Your task to perform on an android device: turn off location history Image 0: 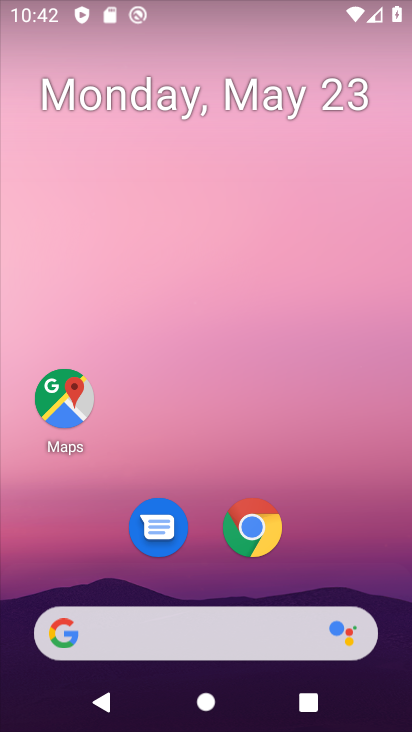
Step 0: drag from (102, 601) to (219, 74)
Your task to perform on an android device: turn off location history Image 1: 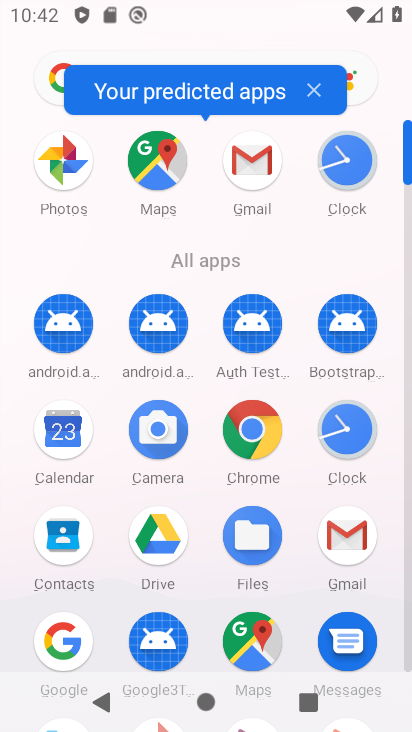
Step 1: drag from (171, 659) to (227, 301)
Your task to perform on an android device: turn off location history Image 2: 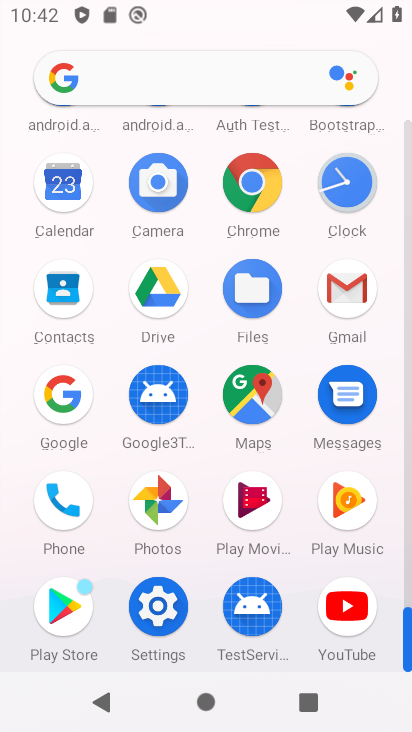
Step 2: click (169, 628)
Your task to perform on an android device: turn off location history Image 3: 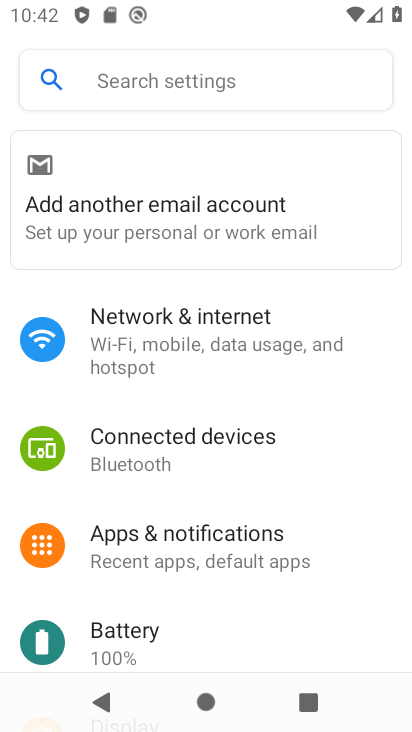
Step 3: drag from (187, 614) to (322, 186)
Your task to perform on an android device: turn off location history Image 4: 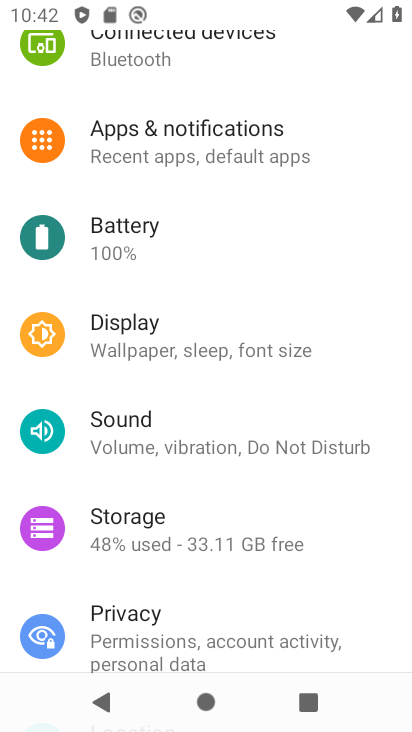
Step 4: drag from (252, 611) to (307, 243)
Your task to perform on an android device: turn off location history Image 5: 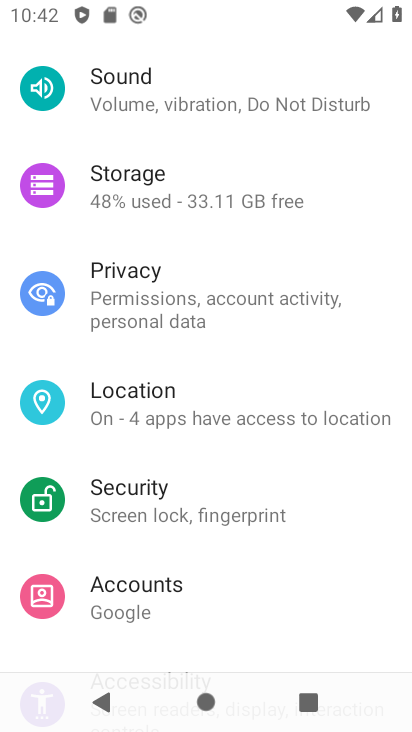
Step 5: click (138, 407)
Your task to perform on an android device: turn off location history Image 6: 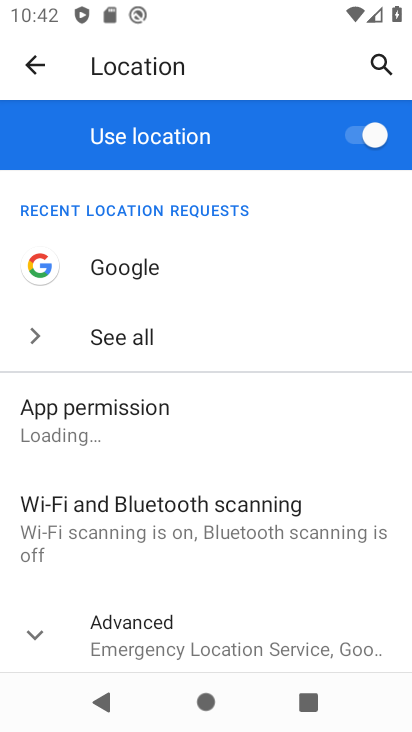
Step 6: drag from (199, 598) to (283, 228)
Your task to perform on an android device: turn off location history Image 7: 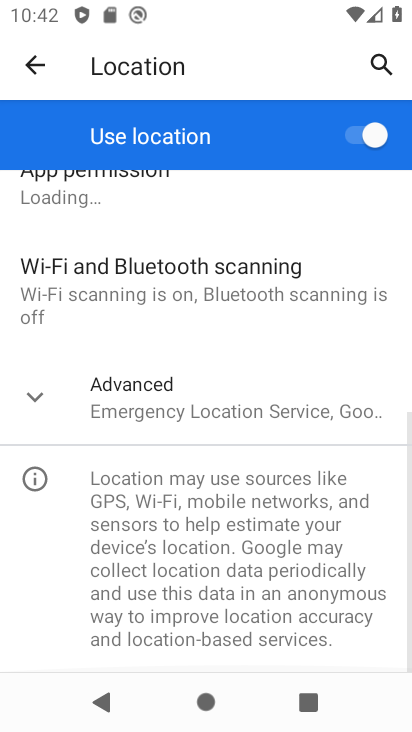
Step 7: click (188, 404)
Your task to perform on an android device: turn off location history Image 8: 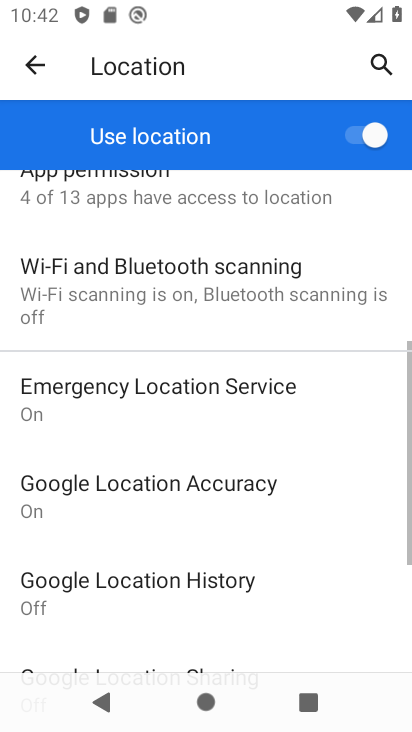
Step 8: drag from (218, 614) to (250, 429)
Your task to perform on an android device: turn off location history Image 9: 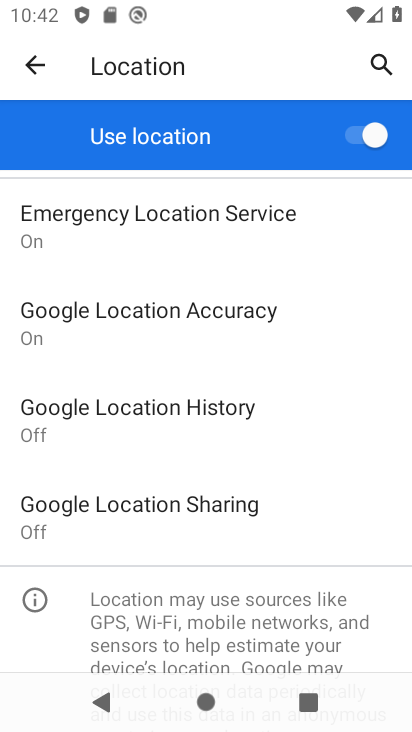
Step 9: click (191, 428)
Your task to perform on an android device: turn off location history Image 10: 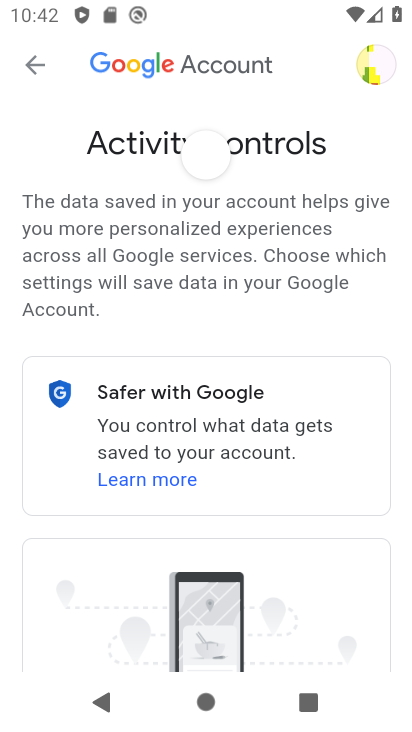
Step 10: task complete